Your task to perform on an android device: Open Amazon Image 0: 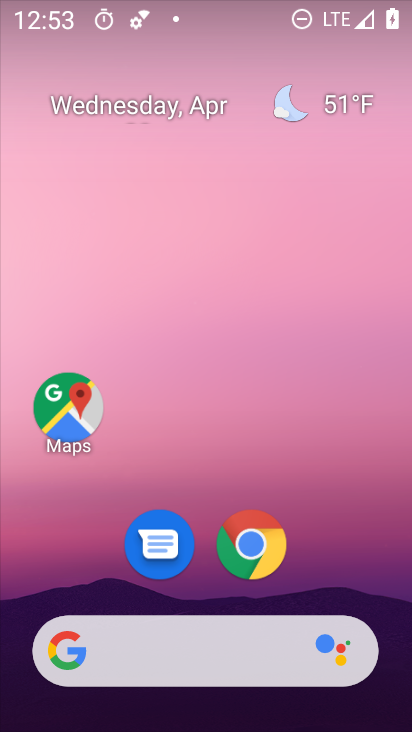
Step 0: drag from (355, 560) to (330, 67)
Your task to perform on an android device: Open Amazon Image 1: 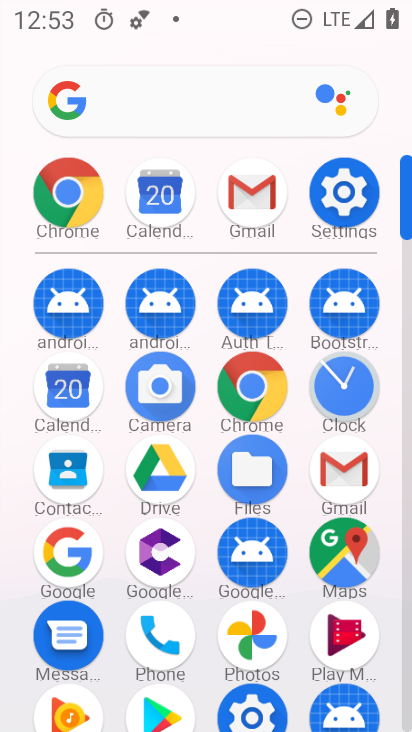
Step 1: click (241, 385)
Your task to perform on an android device: Open Amazon Image 2: 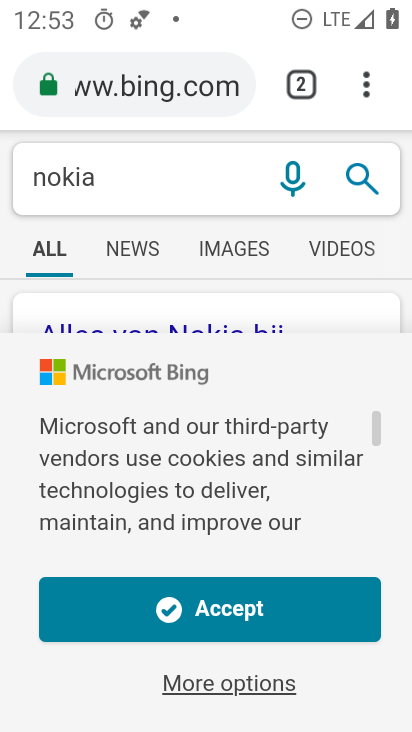
Step 2: press back button
Your task to perform on an android device: Open Amazon Image 3: 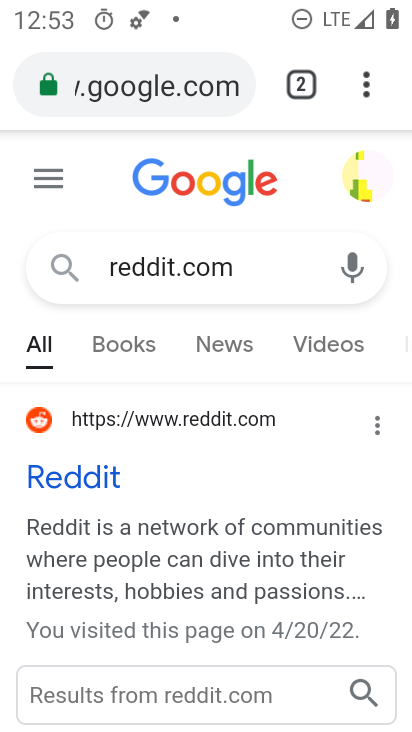
Step 3: press back button
Your task to perform on an android device: Open Amazon Image 4: 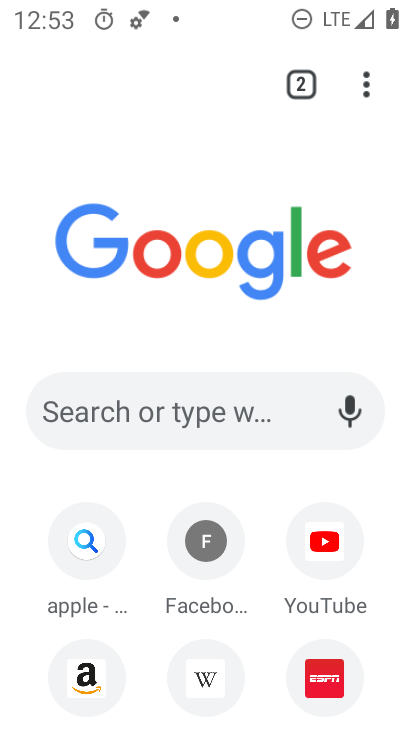
Step 4: drag from (396, 538) to (398, 346)
Your task to perform on an android device: Open Amazon Image 5: 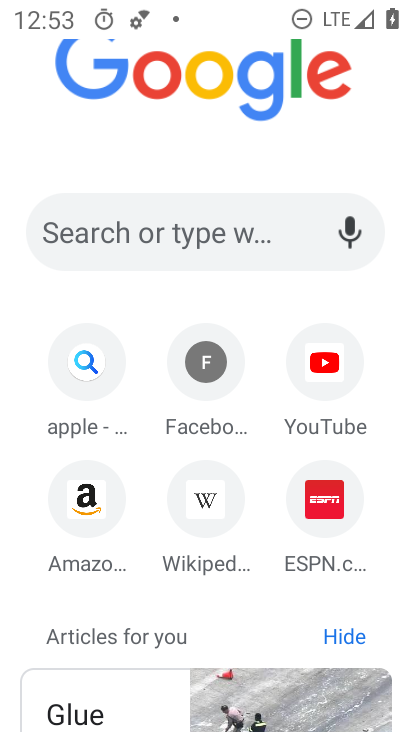
Step 5: click (91, 504)
Your task to perform on an android device: Open Amazon Image 6: 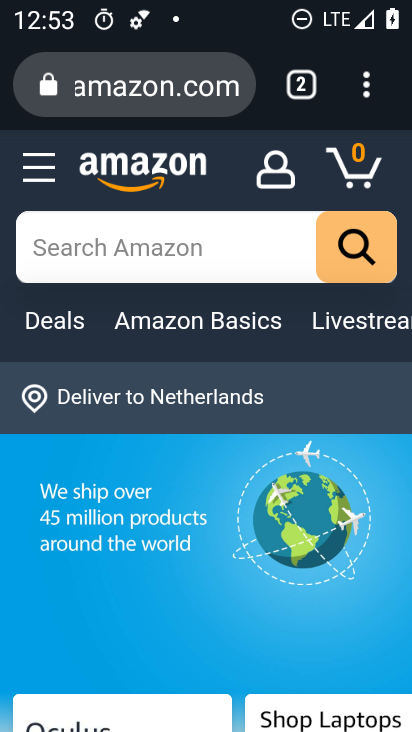
Step 6: task complete